Your task to perform on an android device: What's the weather going to be tomorrow? Image 0: 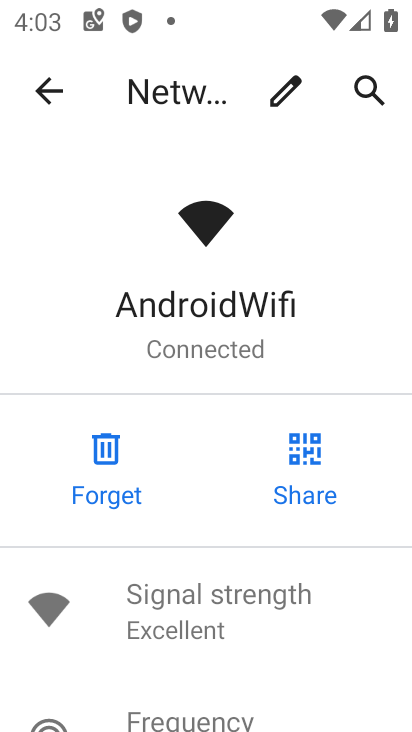
Step 0: press home button
Your task to perform on an android device: What's the weather going to be tomorrow? Image 1: 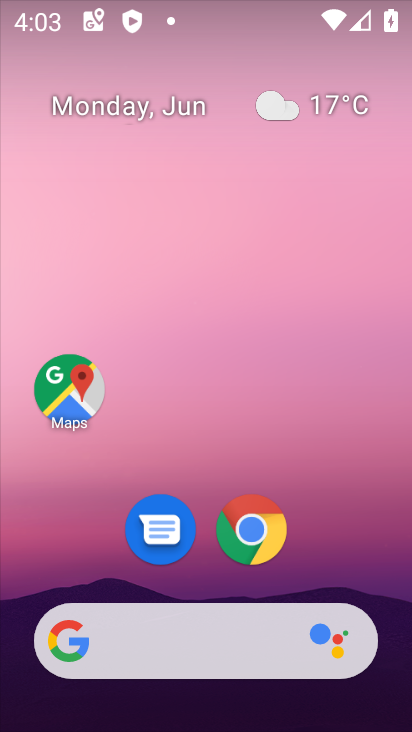
Step 1: drag from (328, 545) to (266, 40)
Your task to perform on an android device: What's the weather going to be tomorrow? Image 2: 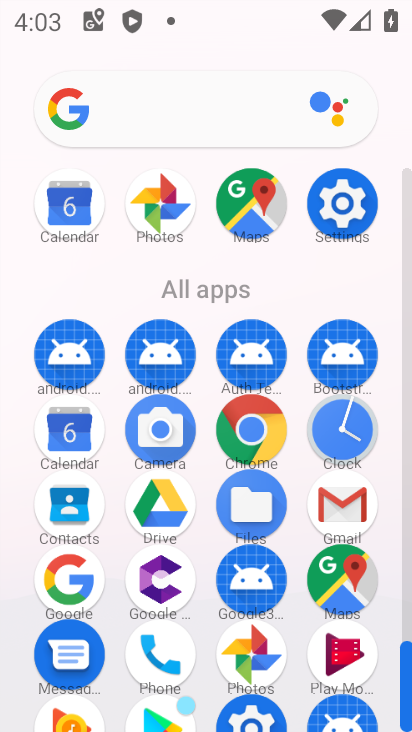
Step 2: click (63, 578)
Your task to perform on an android device: What's the weather going to be tomorrow? Image 3: 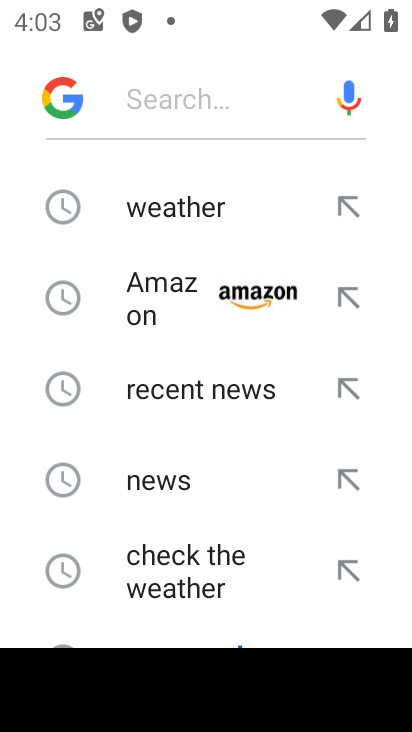
Step 3: click (178, 212)
Your task to perform on an android device: What's the weather going to be tomorrow? Image 4: 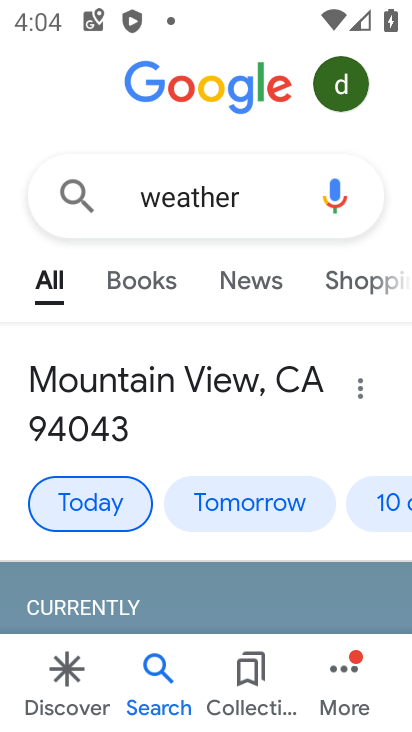
Step 4: click (249, 503)
Your task to perform on an android device: What's the weather going to be tomorrow? Image 5: 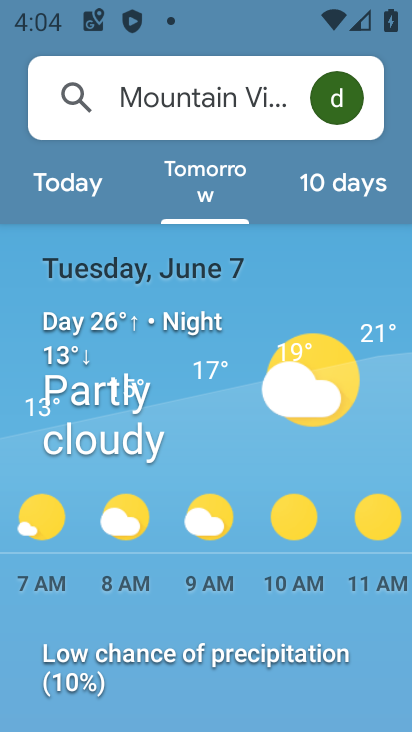
Step 5: task complete